Your task to perform on an android device: Set the phone to "Do not disturb". Image 0: 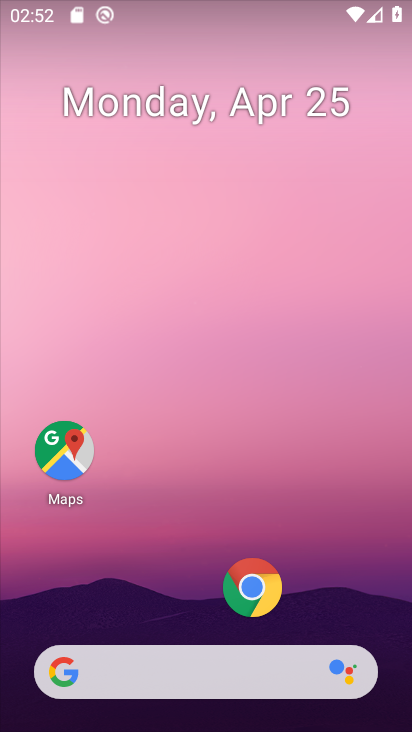
Step 0: drag from (206, 625) to (220, 109)
Your task to perform on an android device: Set the phone to "Do not disturb". Image 1: 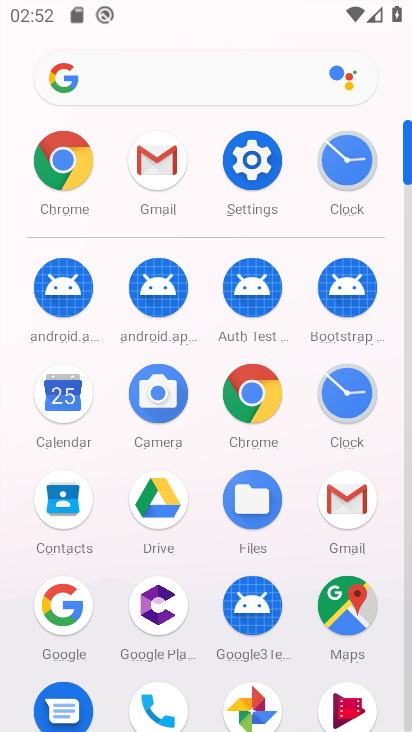
Step 1: drag from (186, 27) to (183, 640)
Your task to perform on an android device: Set the phone to "Do not disturb". Image 2: 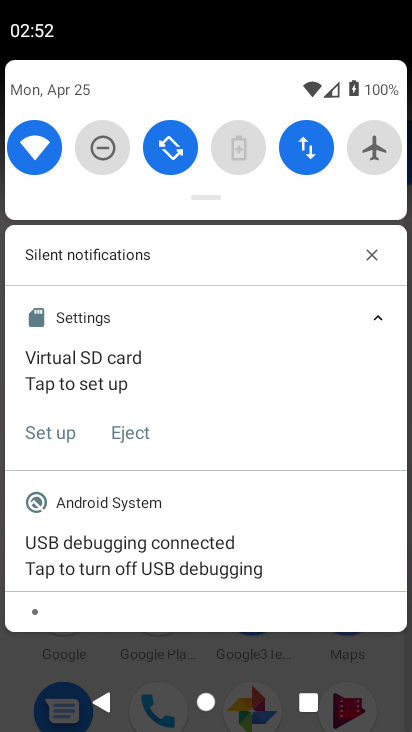
Step 2: click (104, 147)
Your task to perform on an android device: Set the phone to "Do not disturb". Image 3: 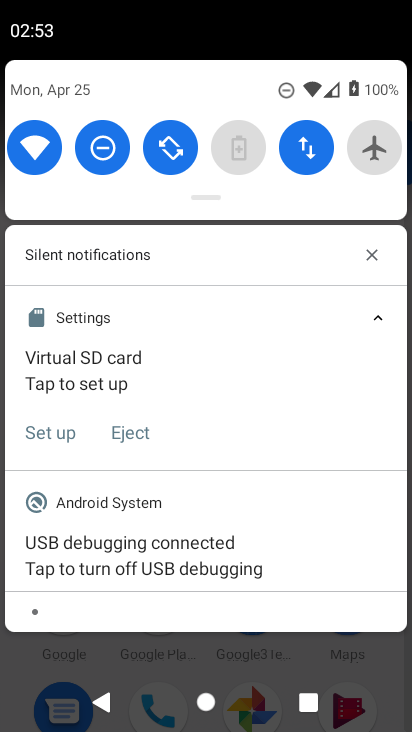
Step 3: task complete